Your task to perform on an android device: Empty the shopping cart on amazon. Add "usb-c" to the cart on amazon, then select checkout. Image 0: 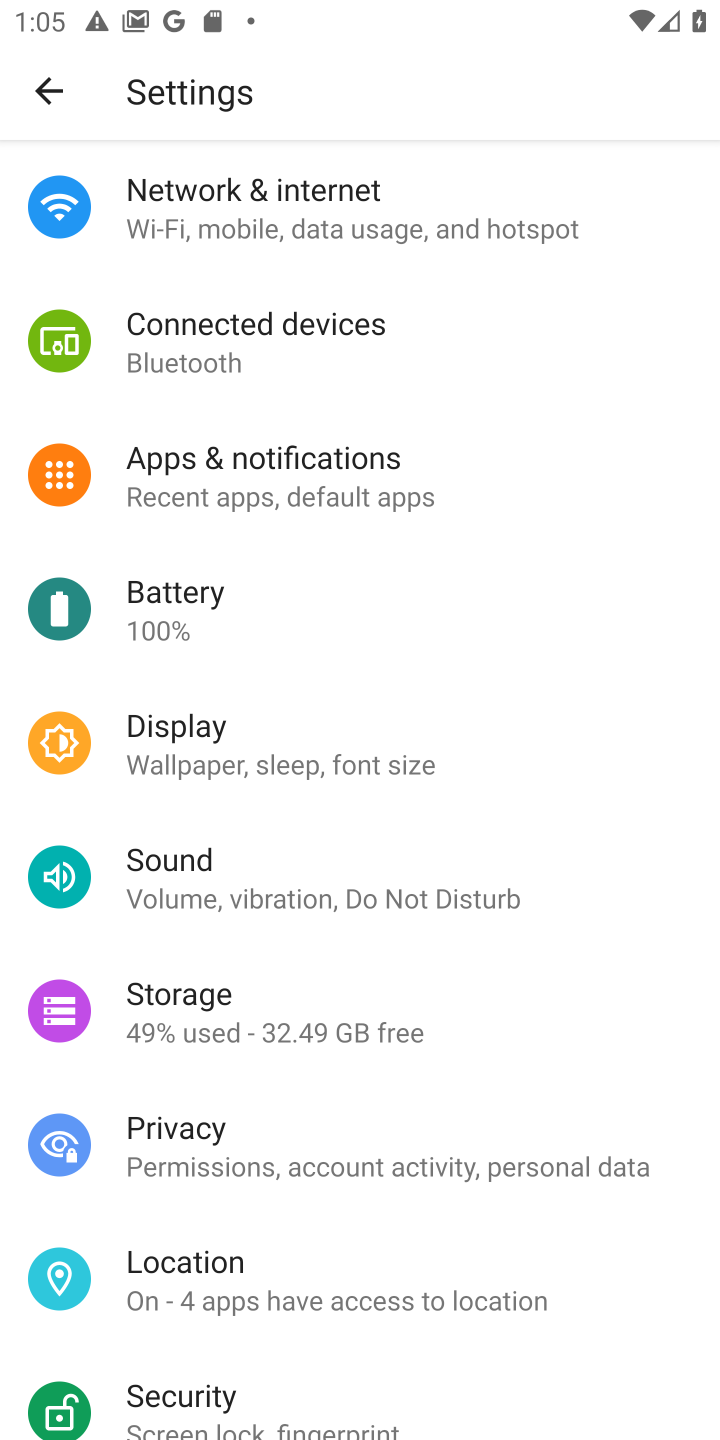
Step 0: press home button
Your task to perform on an android device: Empty the shopping cart on amazon. Add "usb-c" to the cart on amazon, then select checkout. Image 1: 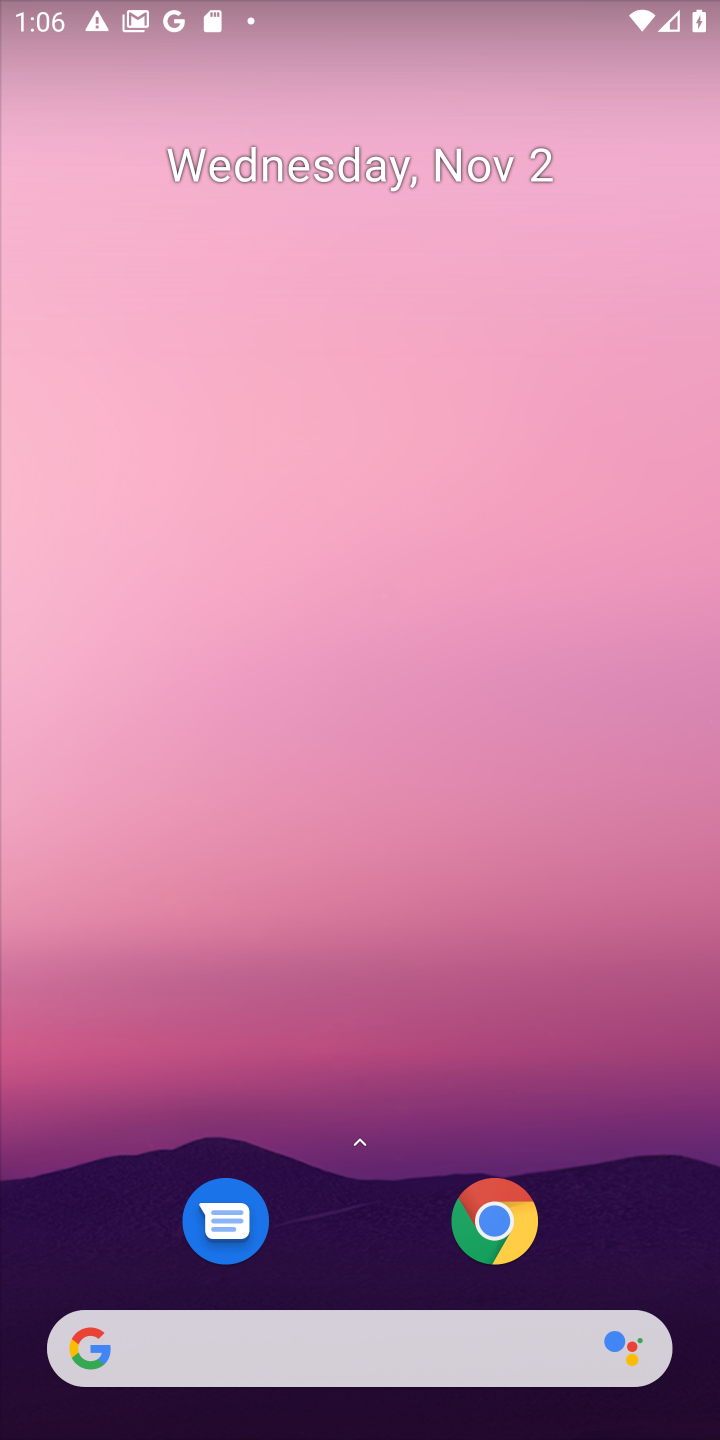
Step 1: click (355, 1334)
Your task to perform on an android device: Empty the shopping cart on amazon. Add "usb-c" to the cart on amazon, then select checkout. Image 2: 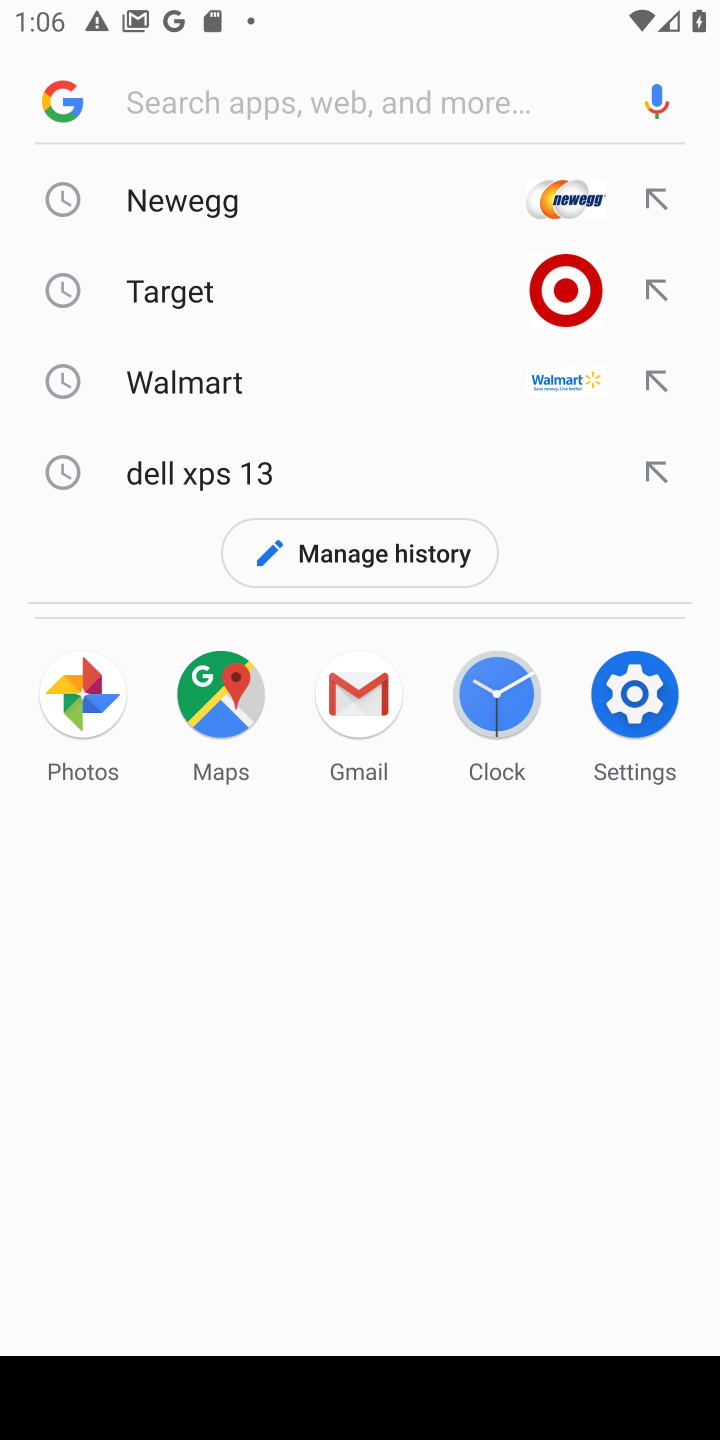
Step 2: type "amazon"
Your task to perform on an android device: Empty the shopping cart on amazon. Add "usb-c" to the cart on amazon, then select checkout. Image 3: 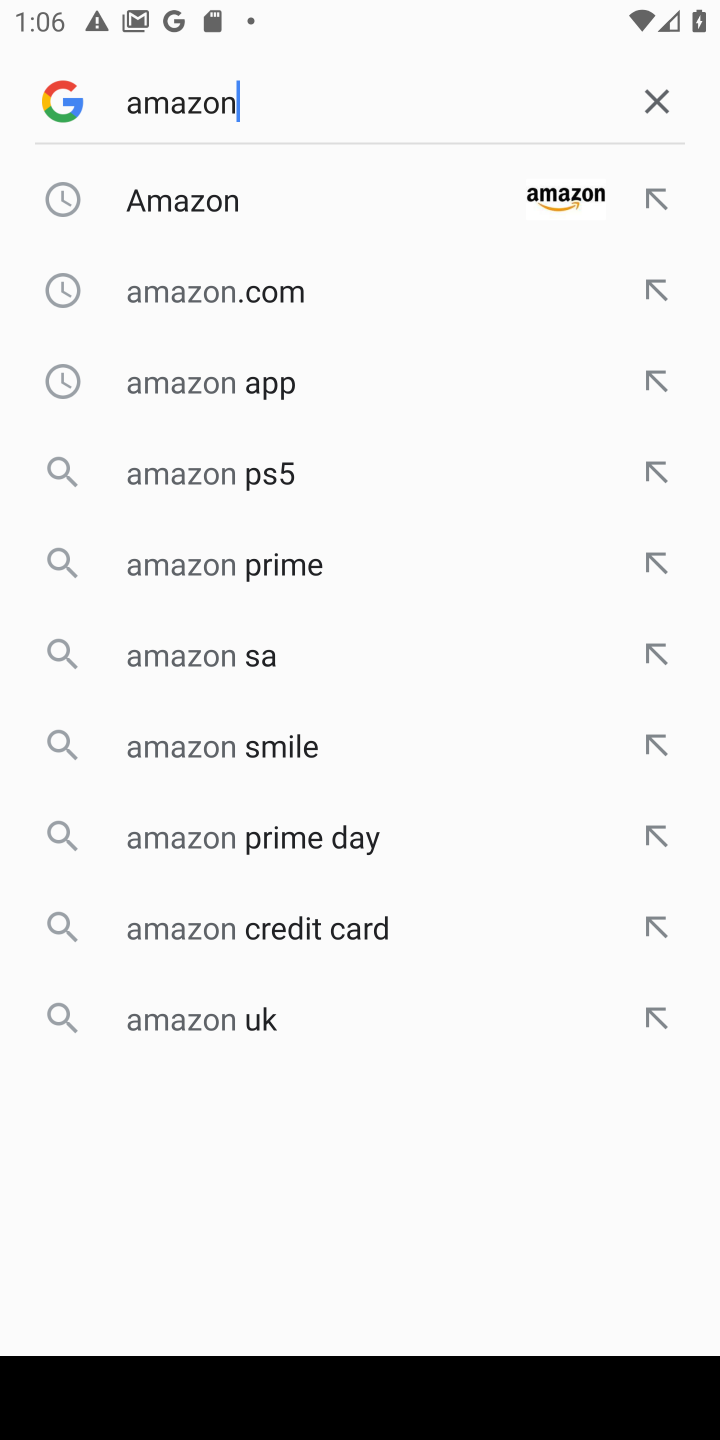
Step 3: click (333, 222)
Your task to perform on an android device: Empty the shopping cart on amazon. Add "usb-c" to the cart on amazon, then select checkout. Image 4: 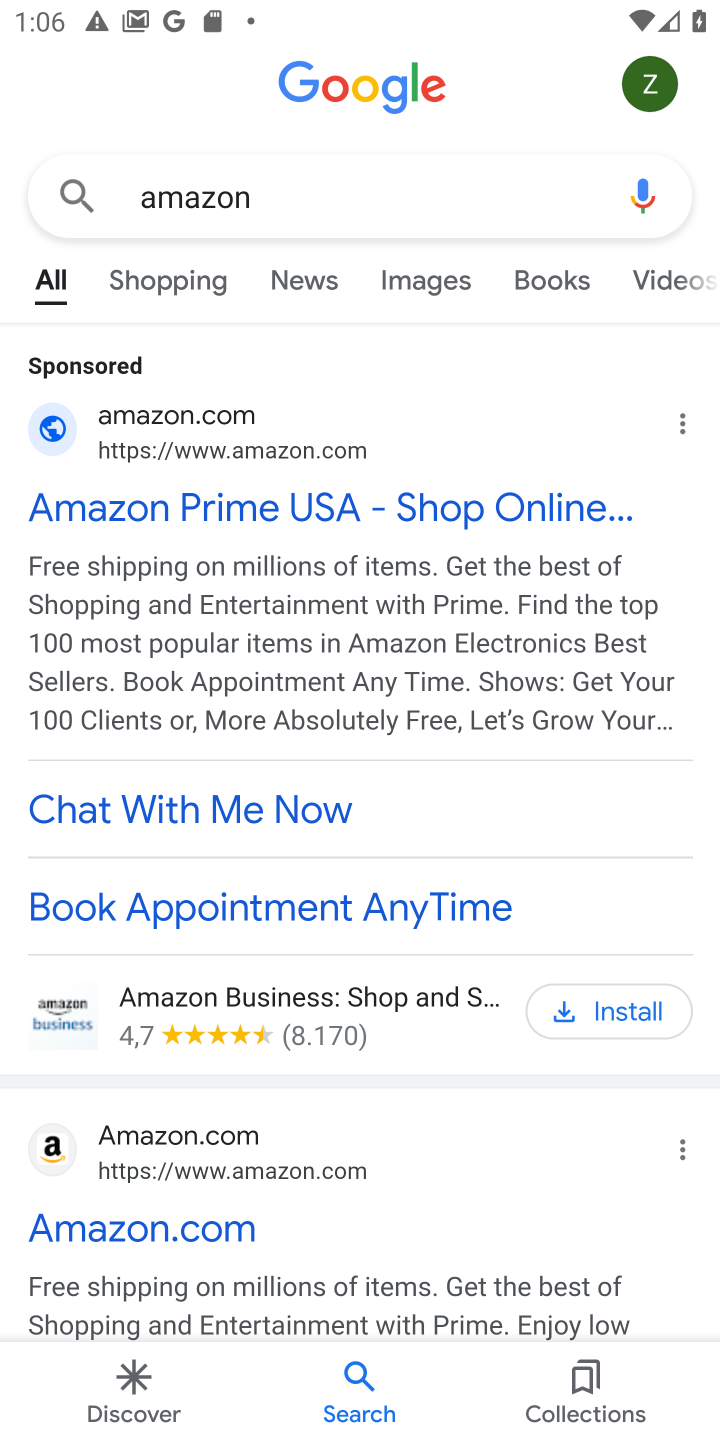
Step 4: click (235, 497)
Your task to perform on an android device: Empty the shopping cart on amazon. Add "usb-c" to the cart on amazon, then select checkout. Image 5: 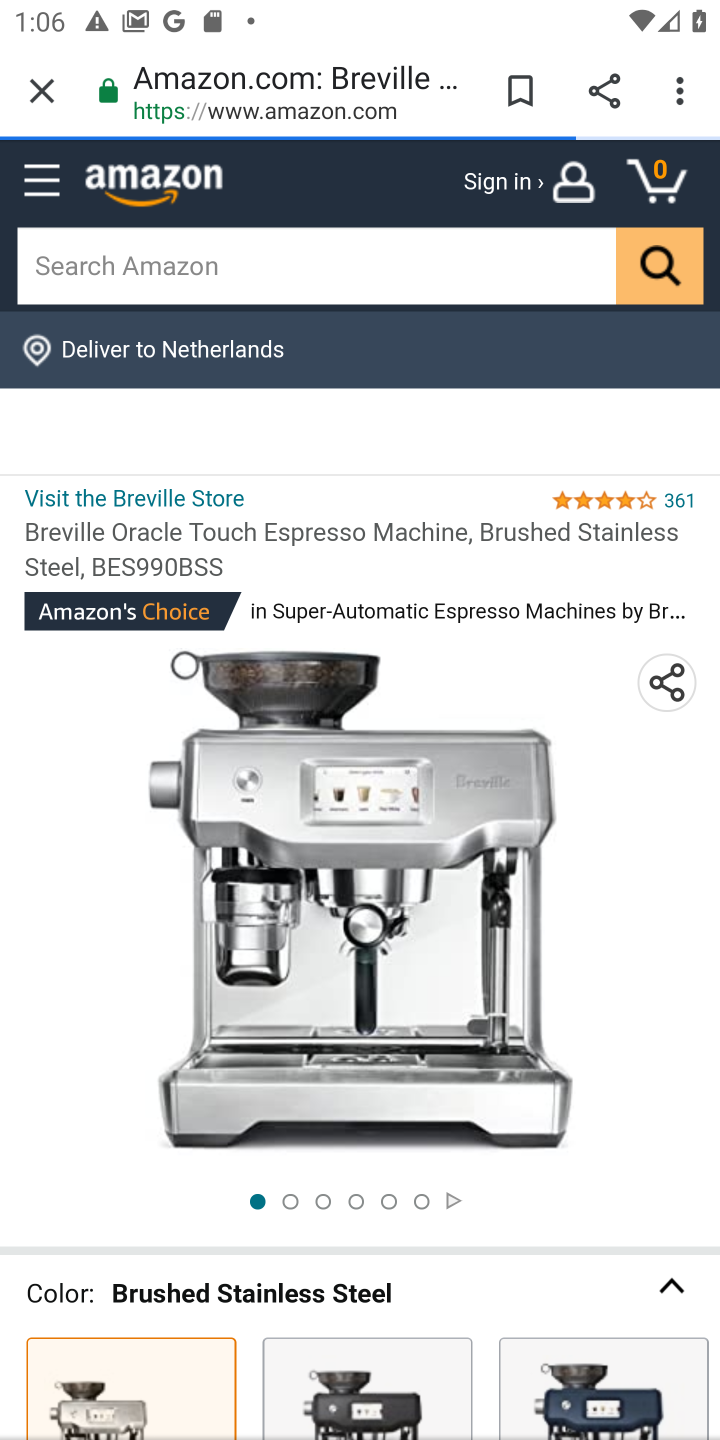
Step 5: click (293, 248)
Your task to perform on an android device: Empty the shopping cart on amazon. Add "usb-c" to the cart on amazon, then select checkout. Image 6: 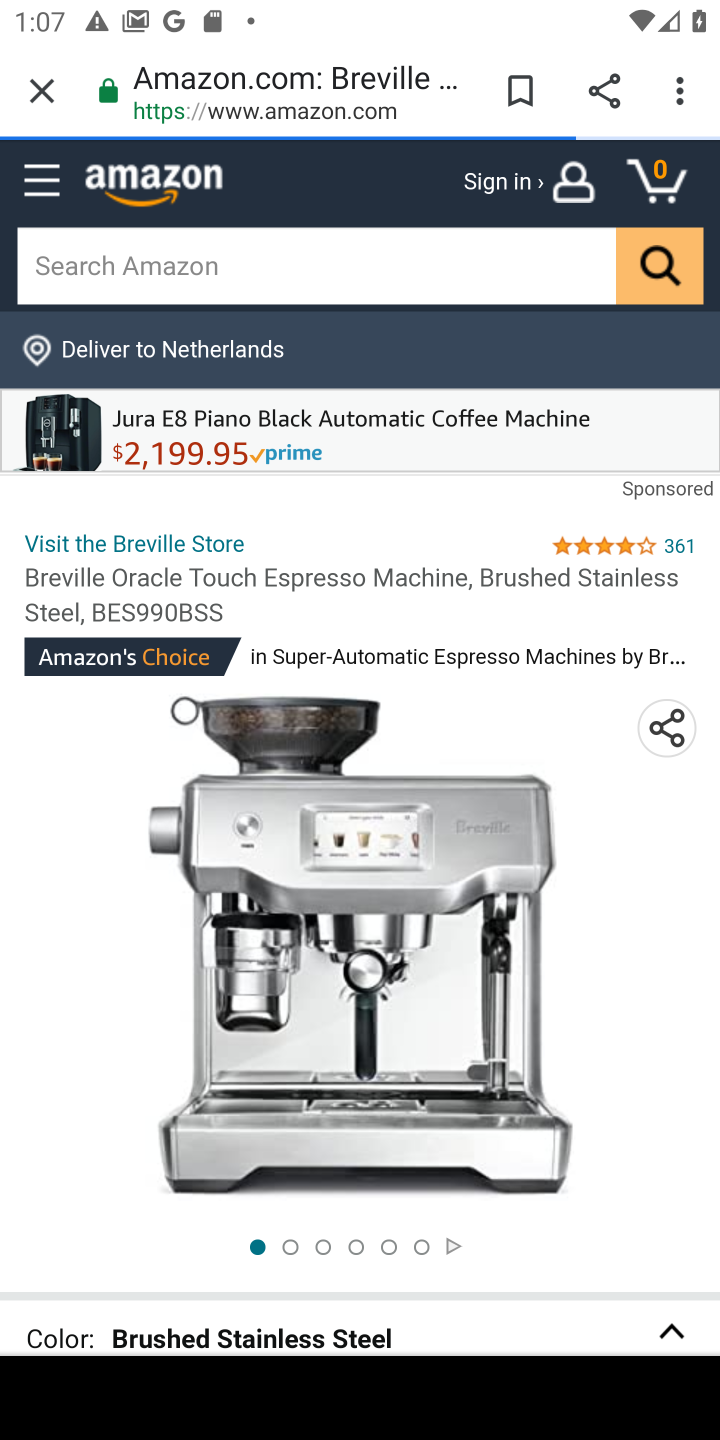
Step 6: type "usb-c to usb -b"
Your task to perform on an android device: Empty the shopping cart on amazon. Add "usb-c" to the cart on amazon, then select checkout. Image 7: 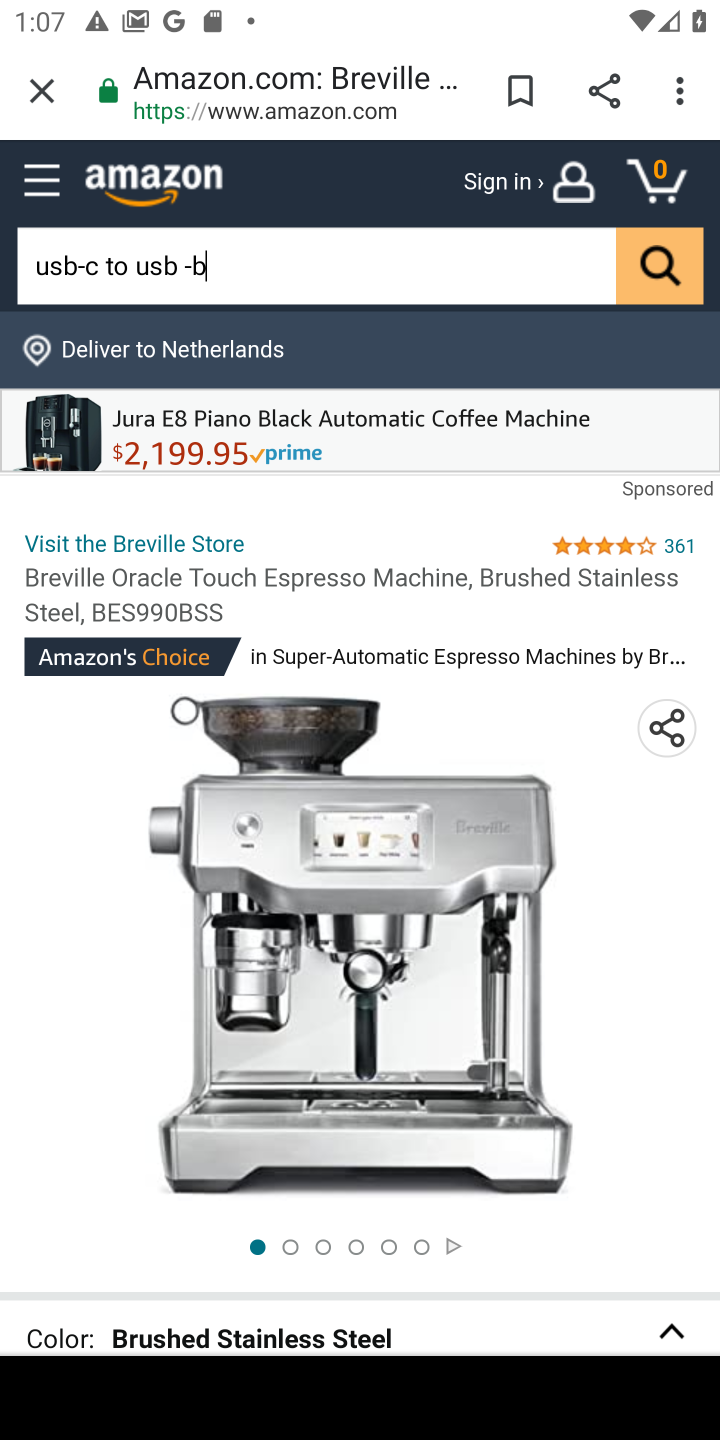
Step 7: click (640, 290)
Your task to perform on an android device: Empty the shopping cart on amazon. Add "usb-c" to the cart on amazon, then select checkout. Image 8: 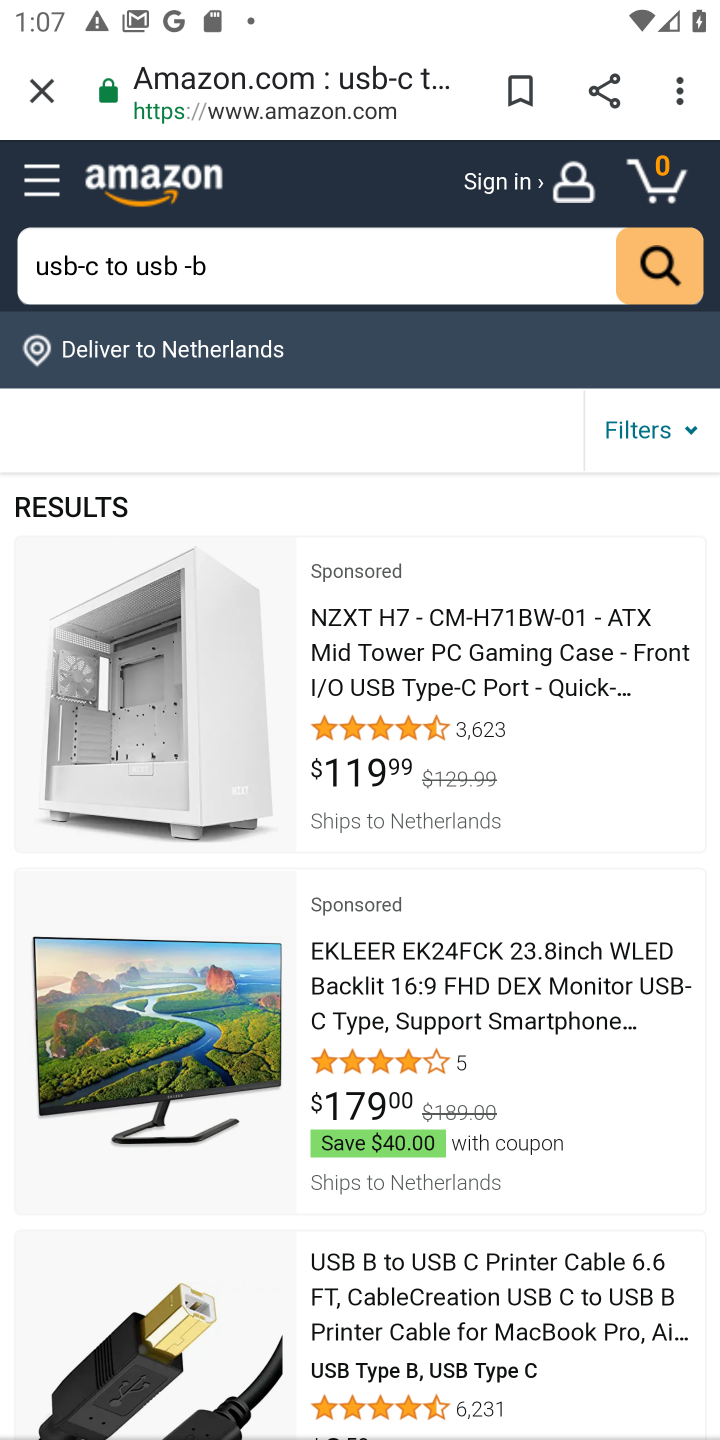
Step 8: task complete